Your task to perform on an android device: Open CNN.com Image 0: 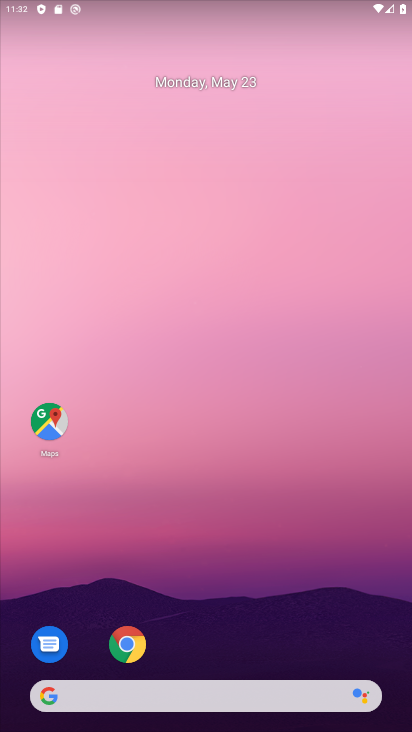
Step 0: click (131, 643)
Your task to perform on an android device: Open CNN.com Image 1: 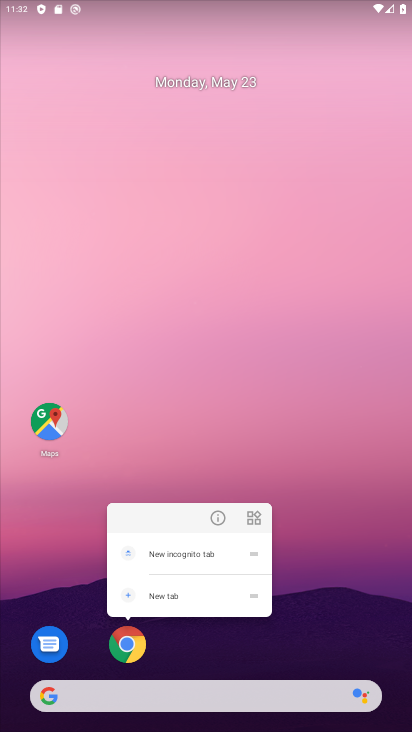
Step 1: click (116, 644)
Your task to perform on an android device: Open CNN.com Image 2: 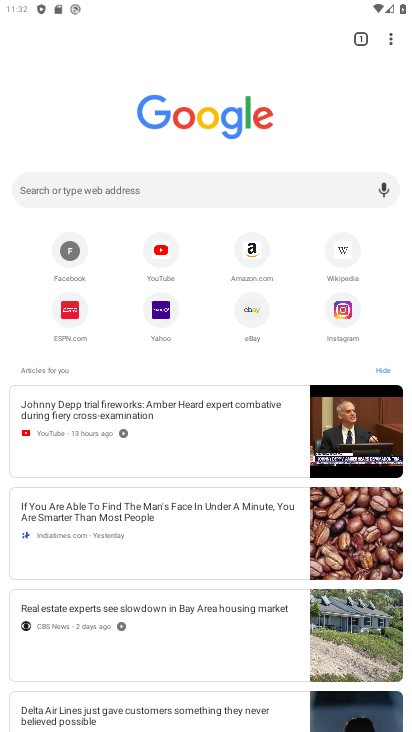
Step 2: click (147, 186)
Your task to perform on an android device: Open CNN.com Image 3: 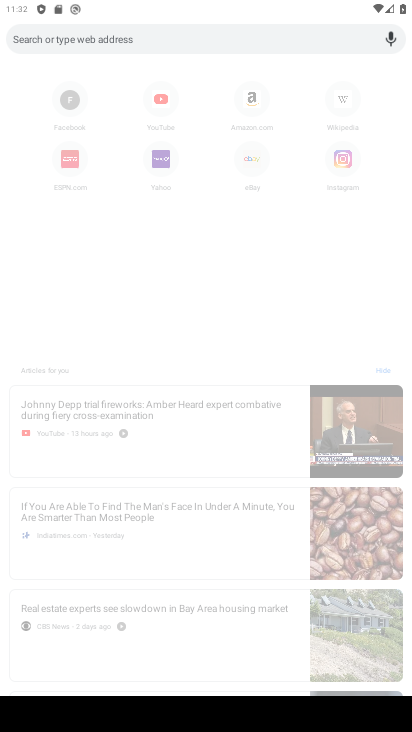
Step 3: type "CNN.com"
Your task to perform on an android device: Open CNN.com Image 4: 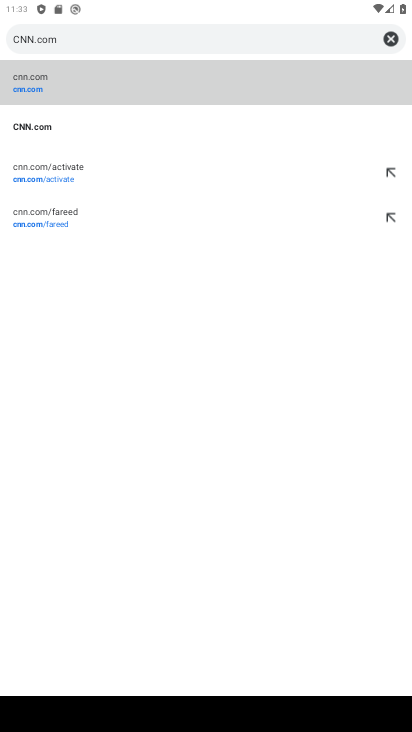
Step 4: click (21, 99)
Your task to perform on an android device: Open CNN.com Image 5: 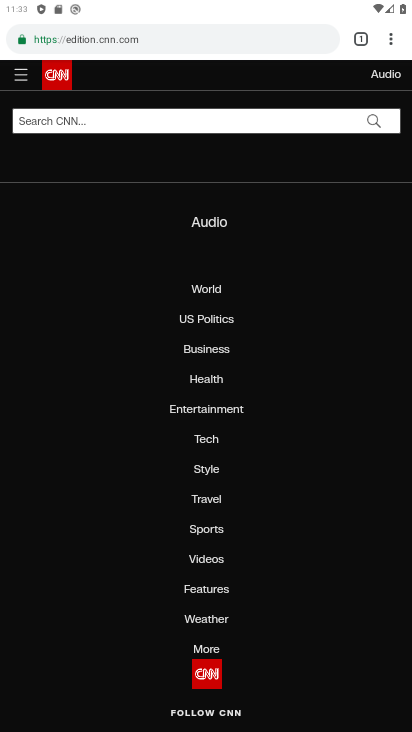
Step 5: task complete